Your task to perform on an android device: Play the last video I watched on Youtube Image 0: 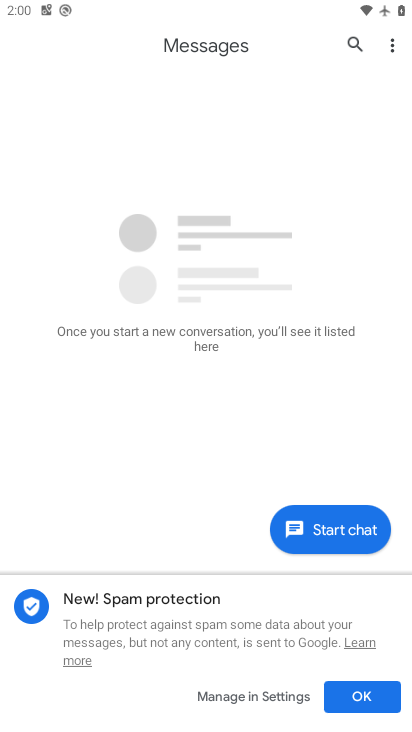
Step 0: drag from (244, 617) to (411, 482)
Your task to perform on an android device: Play the last video I watched on Youtube Image 1: 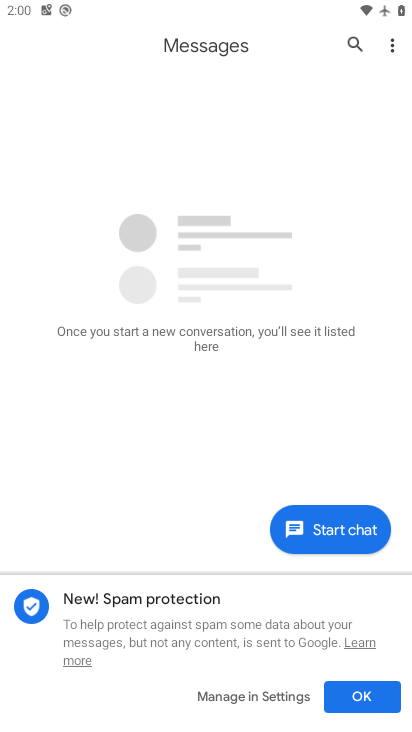
Step 1: press home button
Your task to perform on an android device: Play the last video I watched on Youtube Image 2: 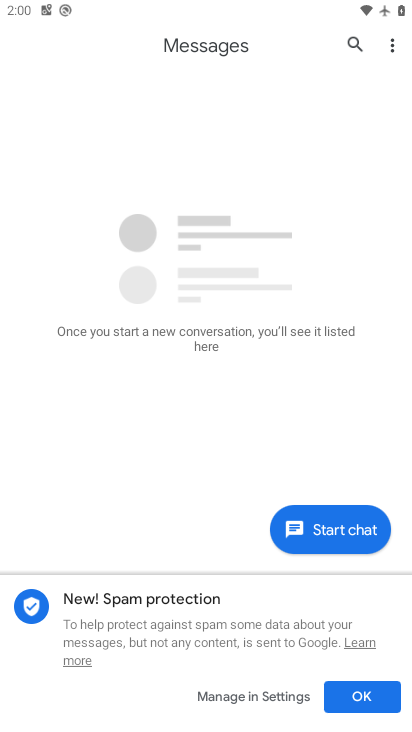
Step 2: drag from (411, 482) to (410, 618)
Your task to perform on an android device: Play the last video I watched on Youtube Image 3: 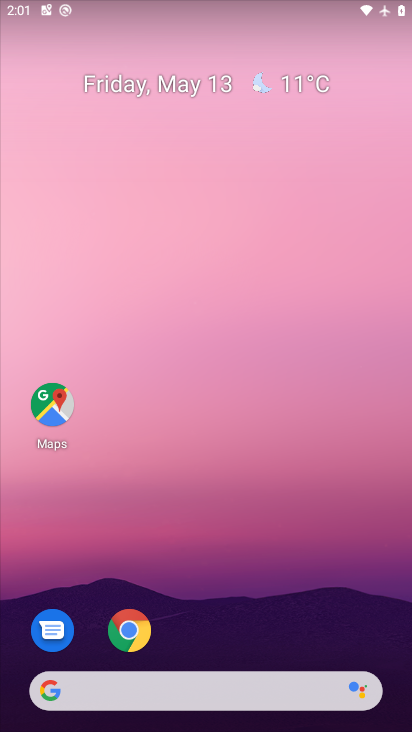
Step 3: drag from (250, 652) to (244, 260)
Your task to perform on an android device: Play the last video I watched on Youtube Image 4: 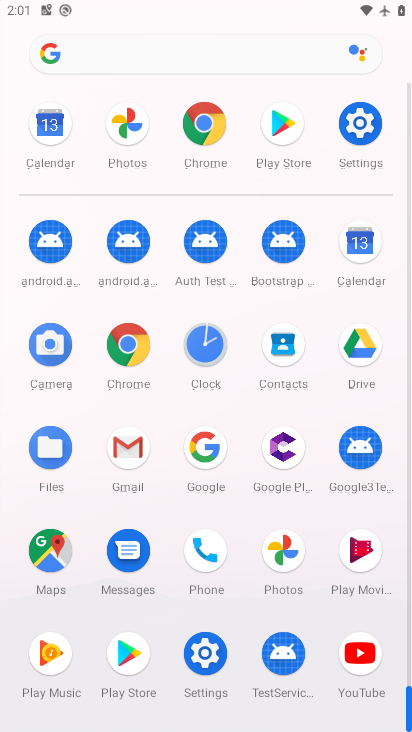
Step 4: click (364, 664)
Your task to perform on an android device: Play the last video I watched on Youtube Image 5: 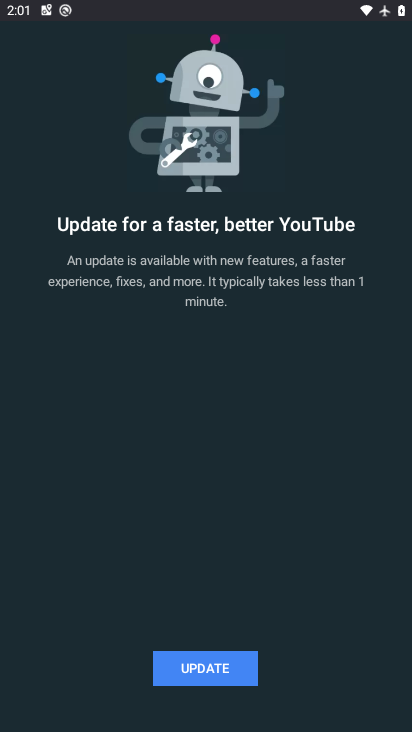
Step 5: click (232, 673)
Your task to perform on an android device: Play the last video I watched on Youtube Image 6: 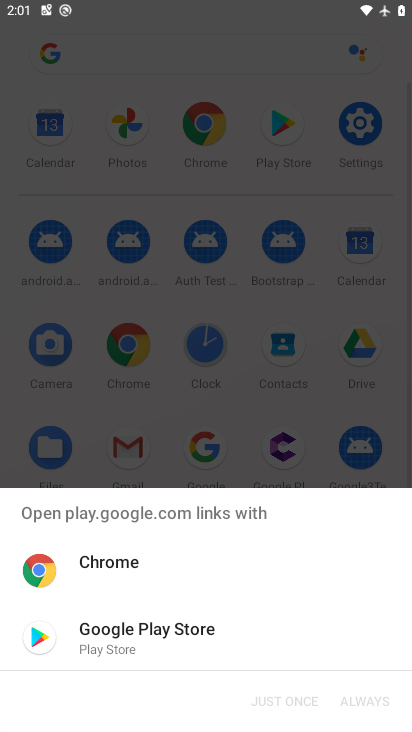
Step 6: click (202, 633)
Your task to perform on an android device: Play the last video I watched on Youtube Image 7: 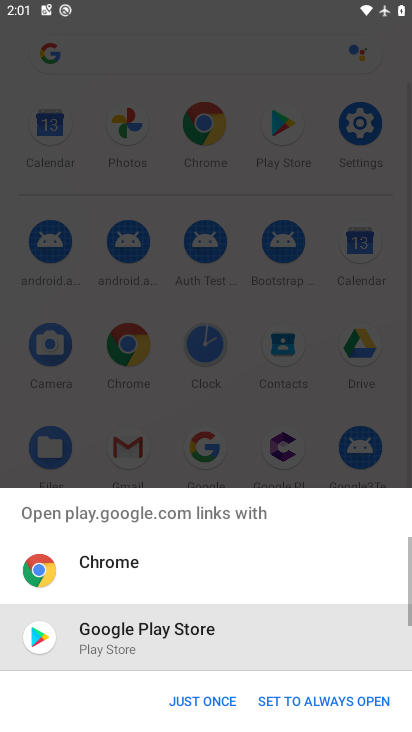
Step 7: click (225, 644)
Your task to perform on an android device: Play the last video I watched on Youtube Image 8: 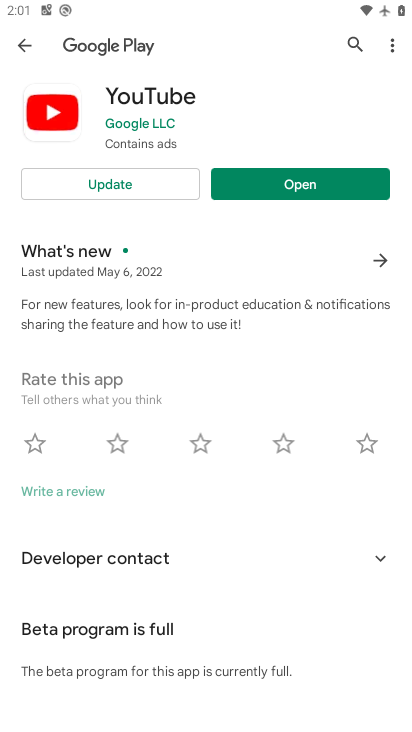
Step 8: click (265, 699)
Your task to perform on an android device: Play the last video I watched on Youtube Image 9: 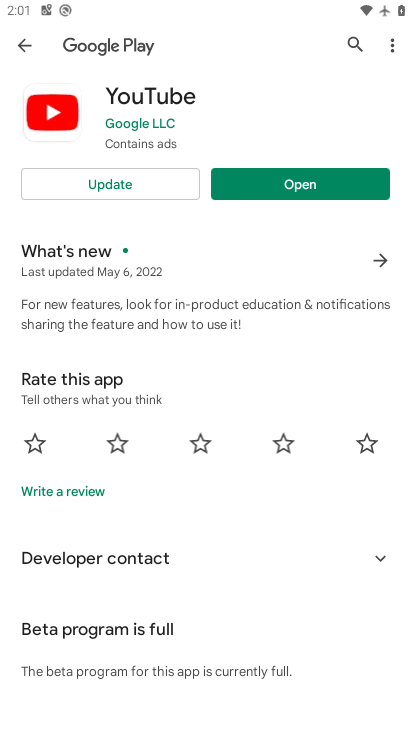
Step 9: click (285, 704)
Your task to perform on an android device: Play the last video I watched on Youtube Image 10: 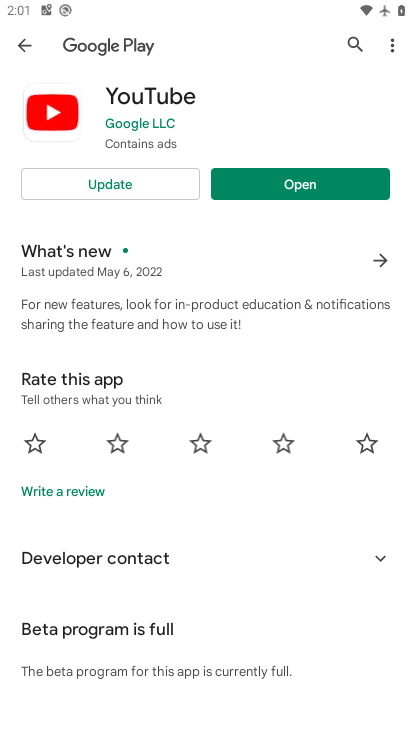
Step 10: click (90, 186)
Your task to perform on an android device: Play the last video I watched on Youtube Image 11: 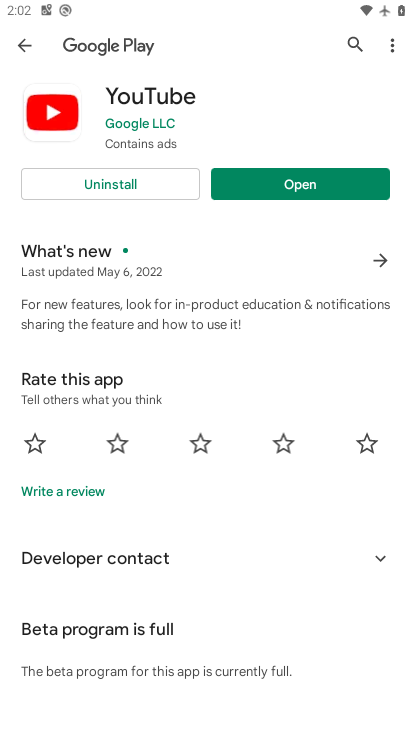
Step 11: click (316, 178)
Your task to perform on an android device: Play the last video I watched on Youtube Image 12: 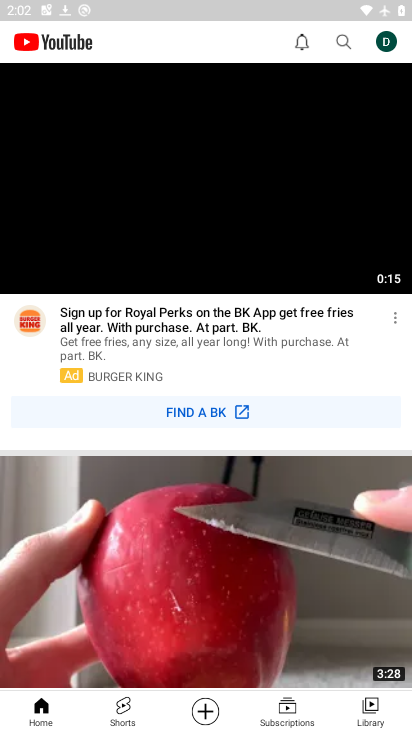
Step 12: click (360, 720)
Your task to perform on an android device: Play the last video I watched on Youtube Image 13: 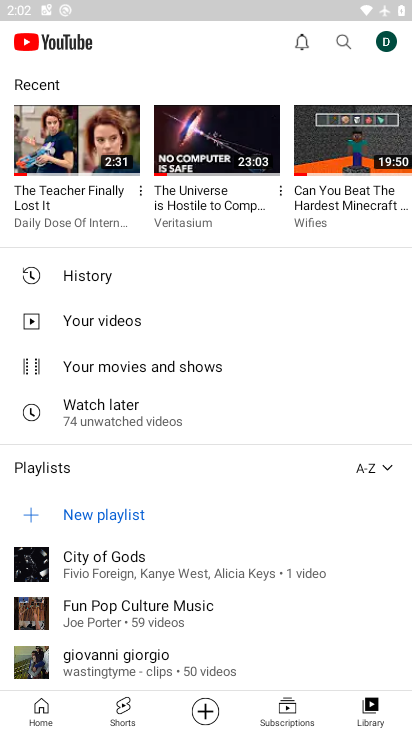
Step 13: click (42, 162)
Your task to perform on an android device: Play the last video I watched on Youtube Image 14: 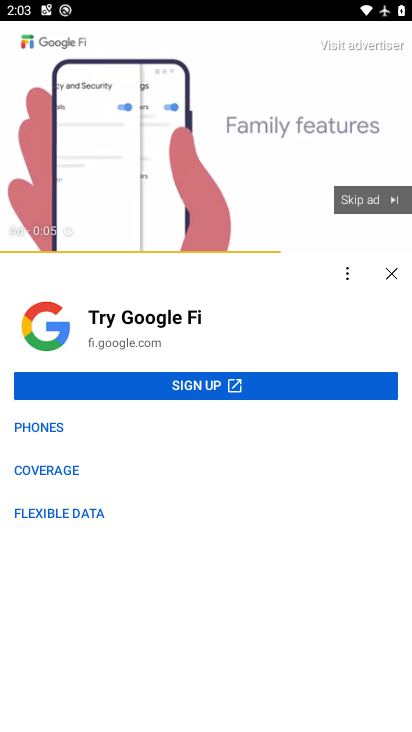
Step 14: click (369, 212)
Your task to perform on an android device: Play the last video I watched on Youtube Image 15: 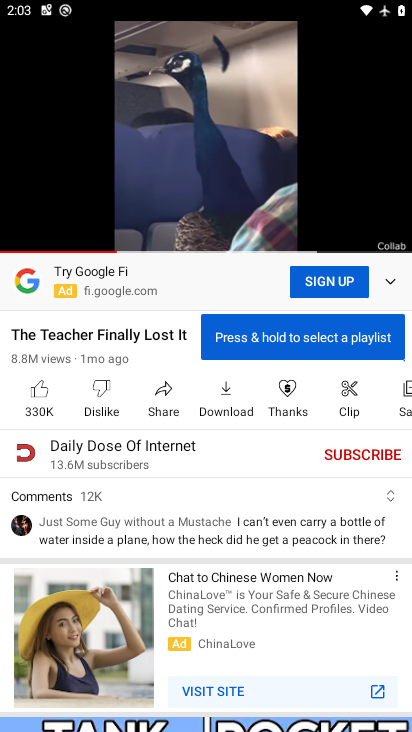
Step 15: task complete